Your task to perform on an android device: Open accessibility settings Image 0: 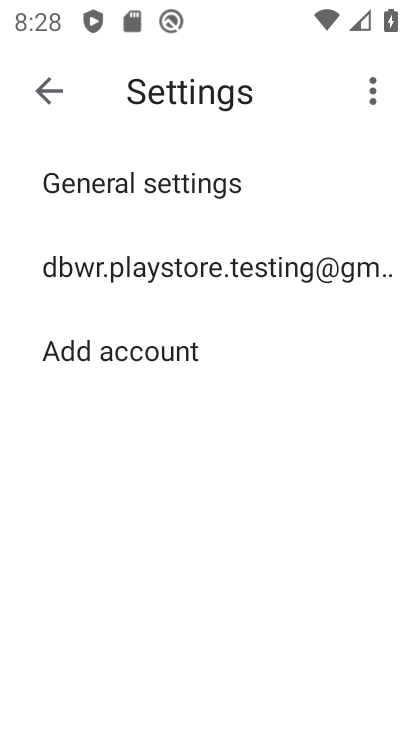
Step 0: press home button
Your task to perform on an android device: Open accessibility settings Image 1: 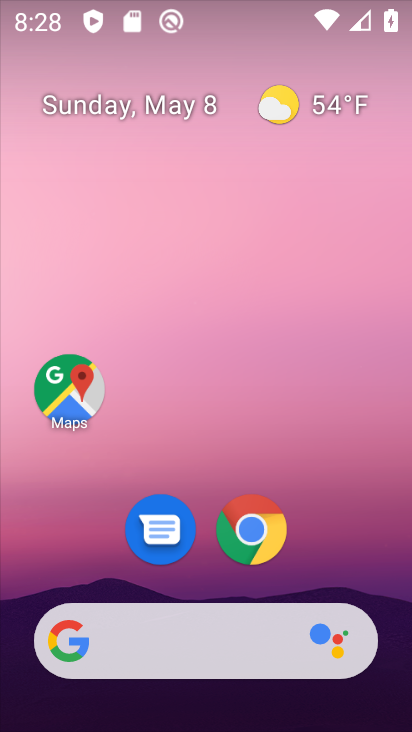
Step 1: drag from (325, 530) to (349, 125)
Your task to perform on an android device: Open accessibility settings Image 2: 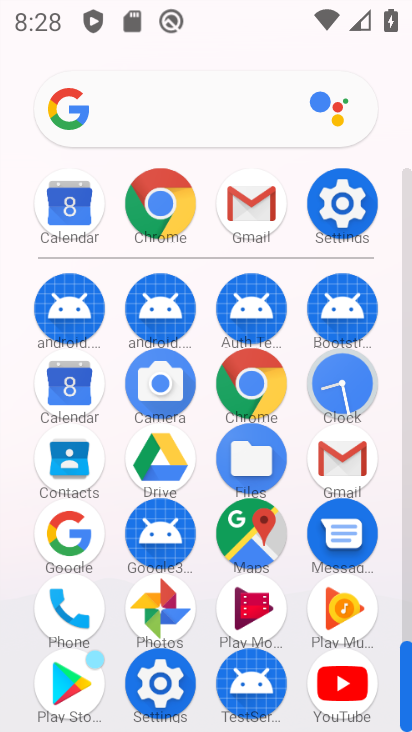
Step 2: click (342, 210)
Your task to perform on an android device: Open accessibility settings Image 3: 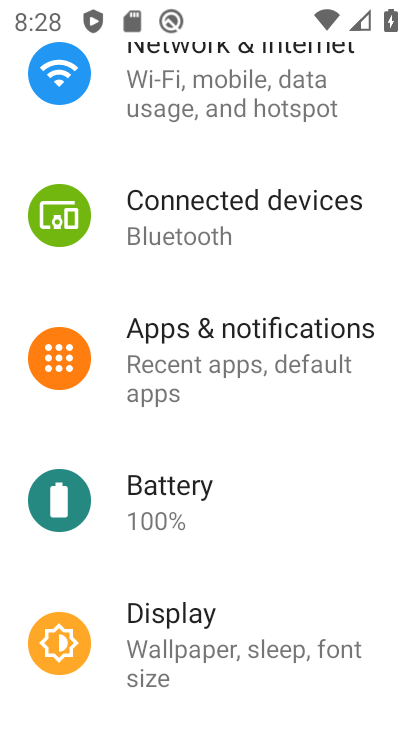
Step 3: drag from (336, 164) to (306, 494)
Your task to perform on an android device: Open accessibility settings Image 4: 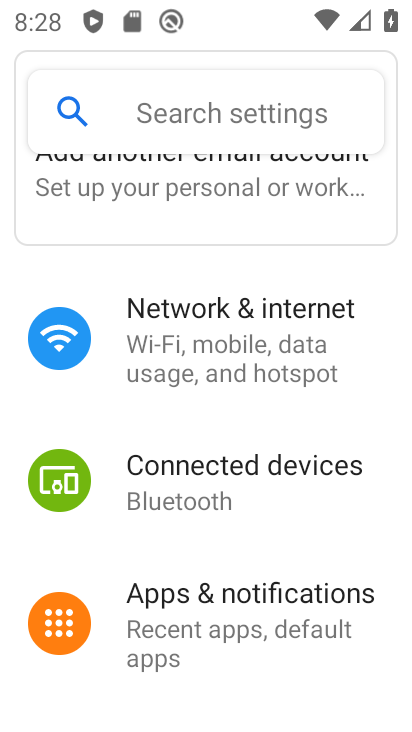
Step 4: drag from (230, 564) to (249, 191)
Your task to perform on an android device: Open accessibility settings Image 5: 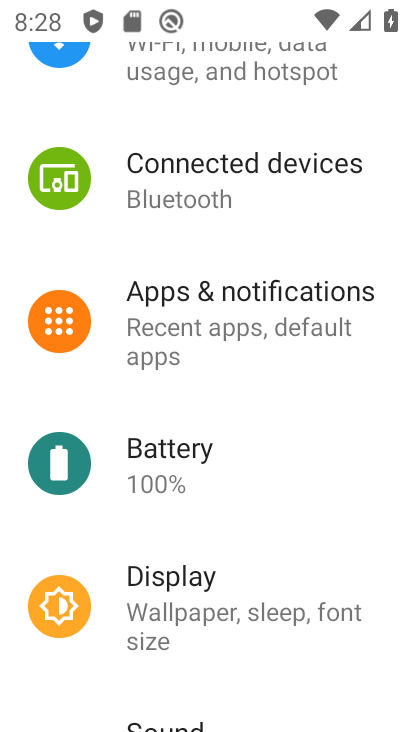
Step 5: drag from (237, 568) to (267, 217)
Your task to perform on an android device: Open accessibility settings Image 6: 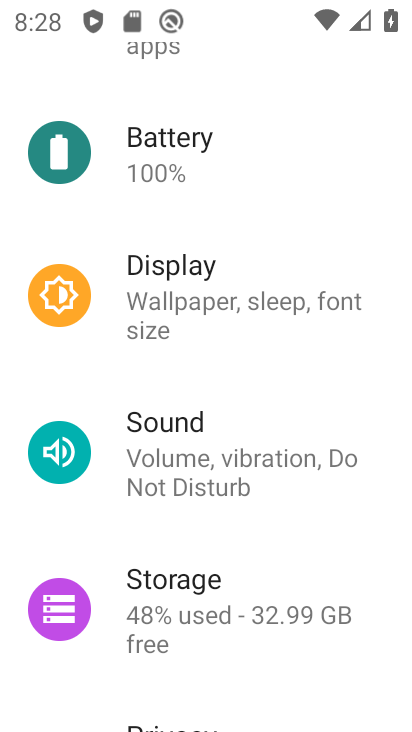
Step 6: drag from (252, 511) to (277, 217)
Your task to perform on an android device: Open accessibility settings Image 7: 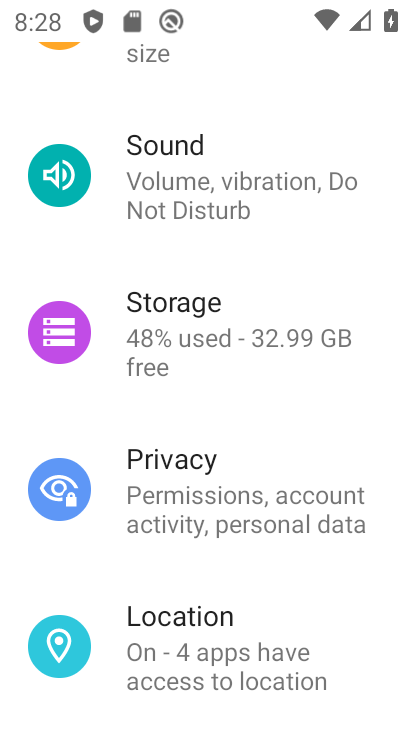
Step 7: drag from (258, 566) to (296, 245)
Your task to perform on an android device: Open accessibility settings Image 8: 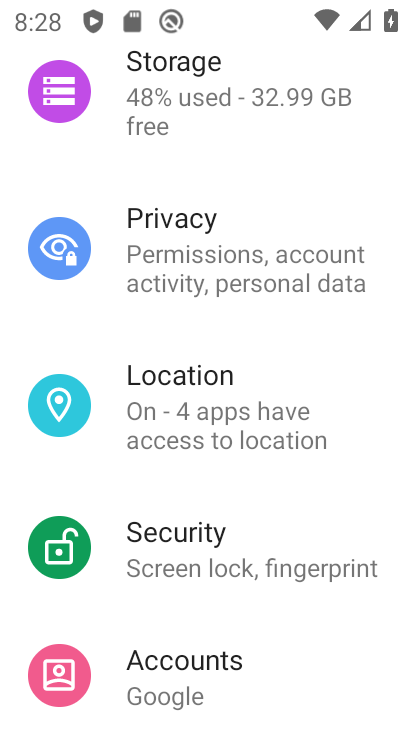
Step 8: drag from (247, 618) to (282, 334)
Your task to perform on an android device: Open accessibility settings Image 9: 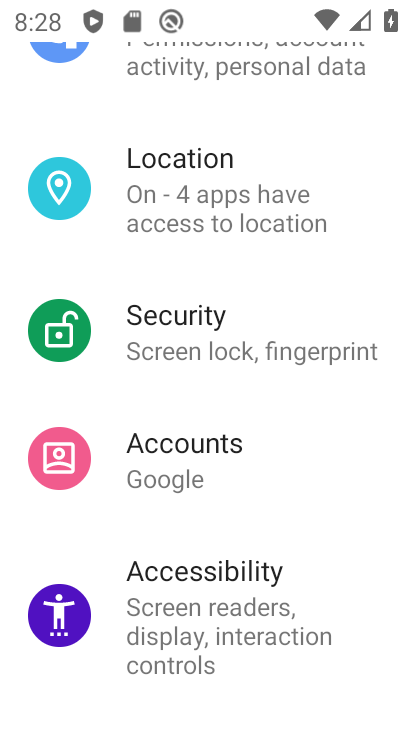
Step 9: click (211, 571)
Your task to perform on an android device: Open accessibility settings Image 10: 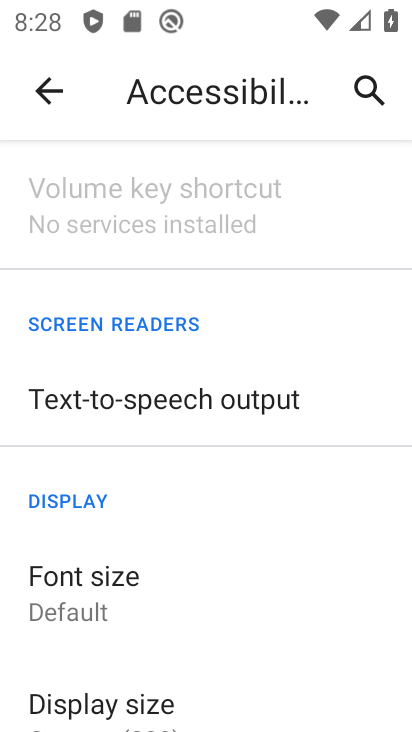
Step 10: task complete